Your task to perform on an android device: check the backup settings in the google photos Image 0: 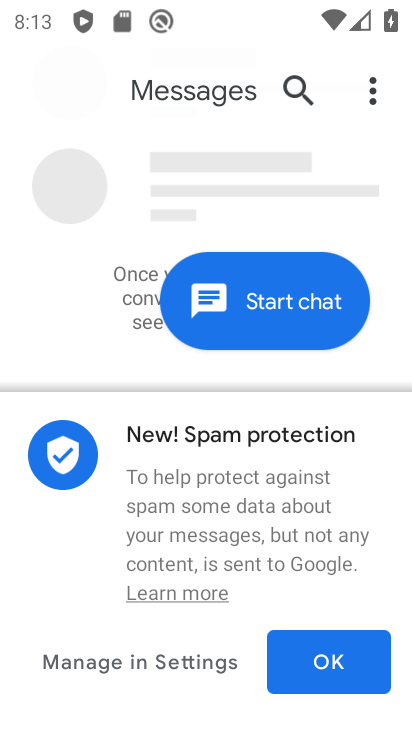
Step 0: press back button
Your task to perform on an android device: check the backup settings in the google photos Image 1: 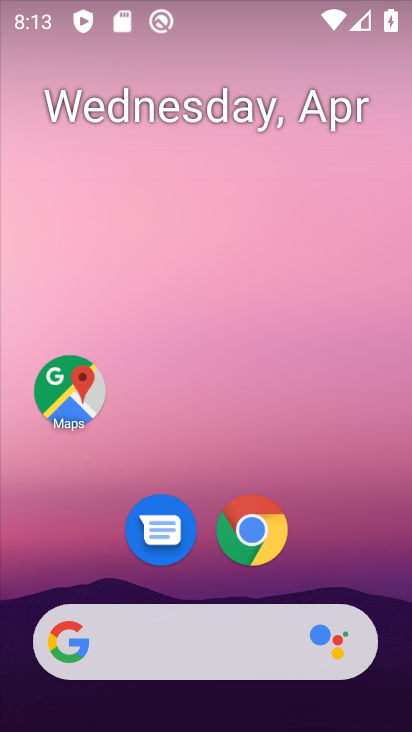
Step 1: drag from (394, 577) to (264, 238)
Your task to perform on an android device: check the backup settings in the google photos Image 2: 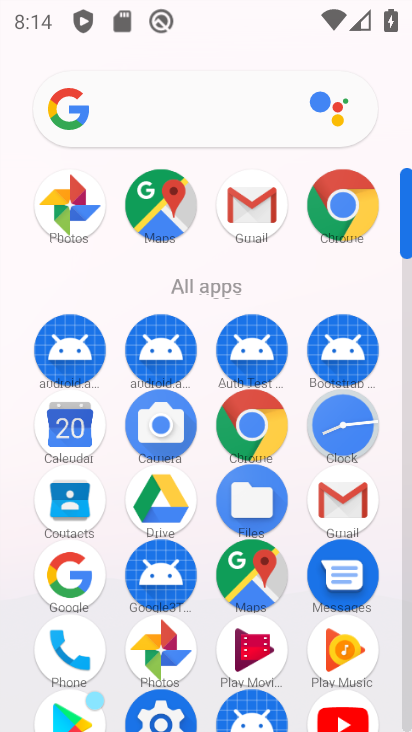
Step 2: click (61, 210)
Your task to perform on an android device: check the backup settings in the google photos Image 3: 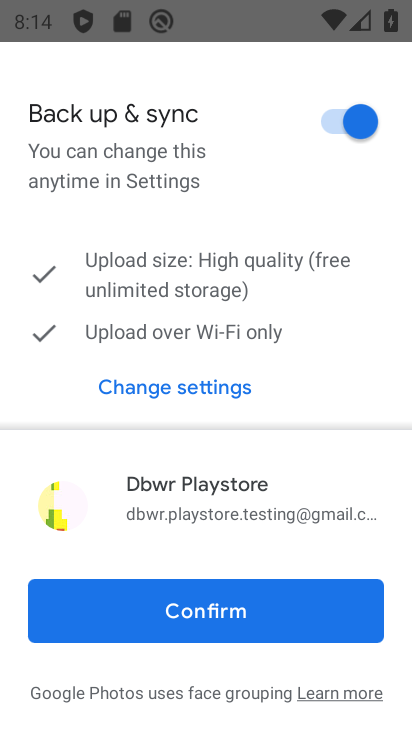
Step 3: click (224, 602)
Your task to perform on an android device: check the backup settings in the google photos Image 4: 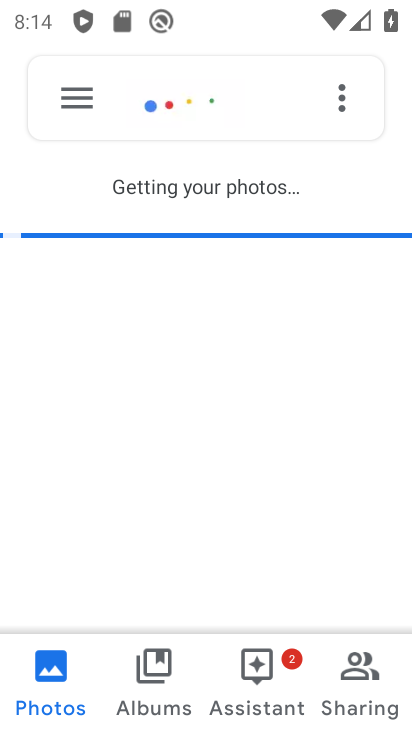
Step 4: click (224, 602)
Your task to perform on an android device: check the backup settings in the google photos Image 5: 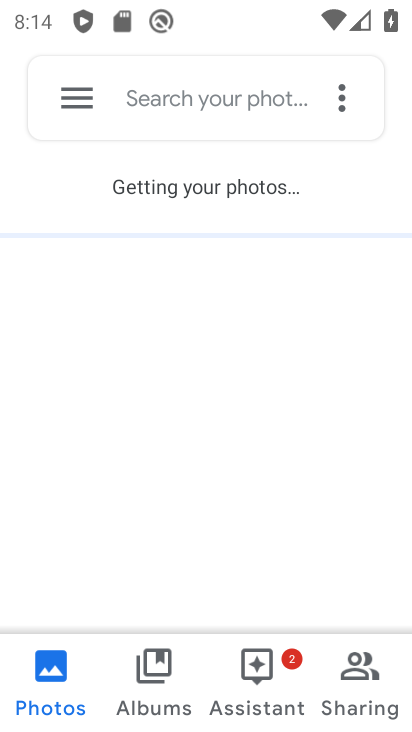
Step 5: click (77, 116)
Your task to perform on an android device: check the backup settings in the google photos Image 6: 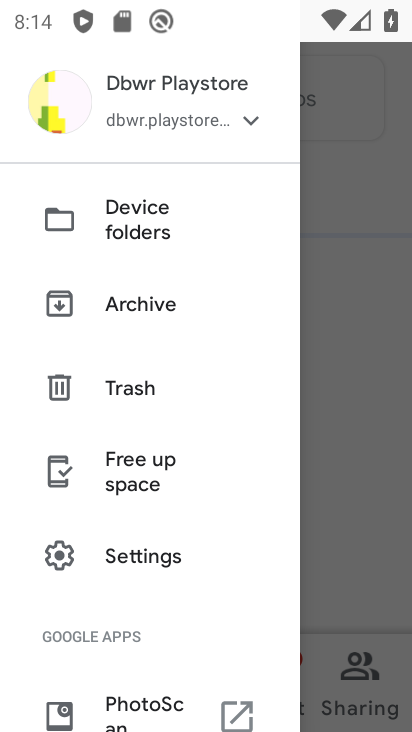
Step 6: click (124, 554)
Your task to perform on an android device: check the backup settings in the google photos Image 7: 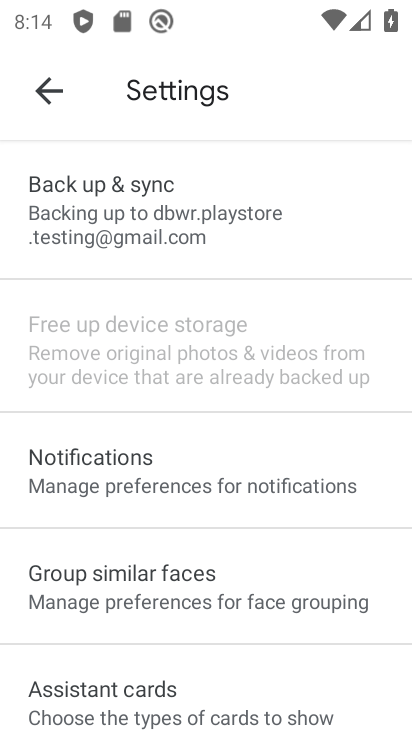
Step 7: click (235, 201)
Your task to perform on an android device: check the backup settings in the google photos Image 8: 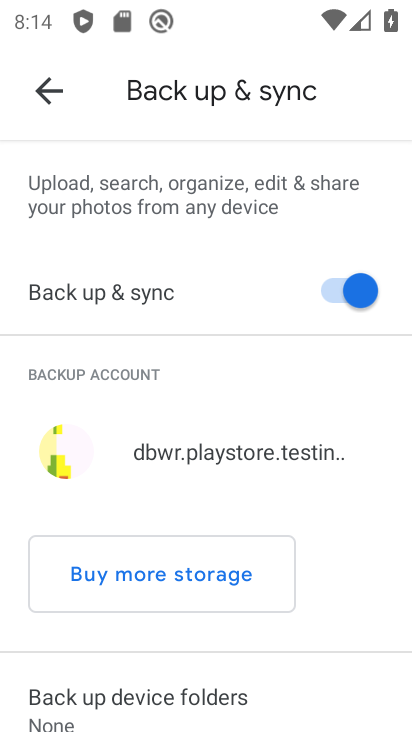
Step 8: task complete